Your task to perform on an android device: Go to Reddit.com Image 0: 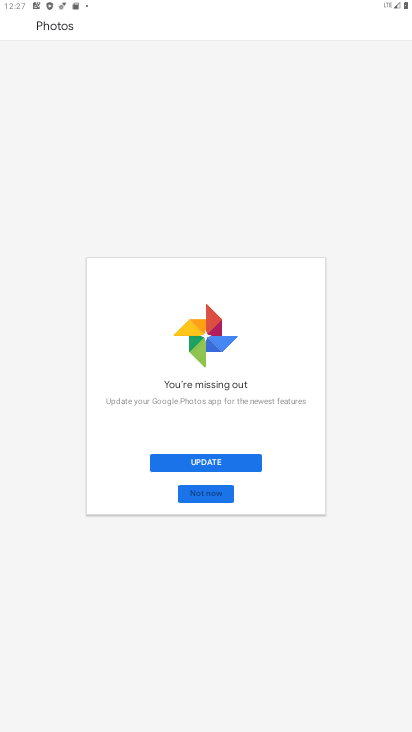
Step 0: press home button
Your task to perform on an android device: Go to Reddit.com Image 1: 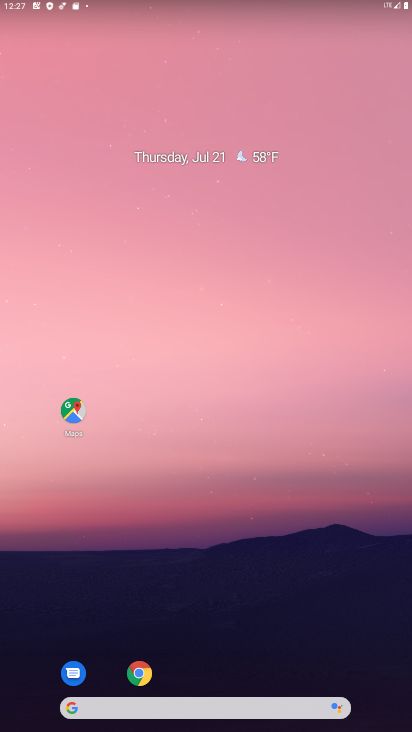
Step 1: drag from (181, 658) to (316, 143)
Your task to perform on an android device: Go to Reddit.com Image 2: 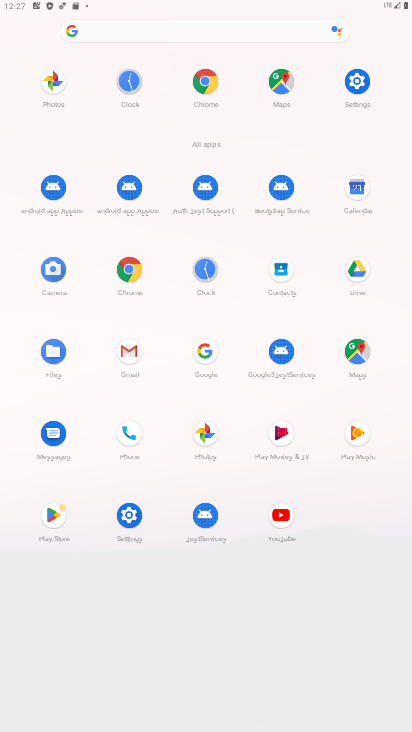
Step 2: click (194, 78)
Your task to perform on an android device: Go to Reddit.com Image 3: 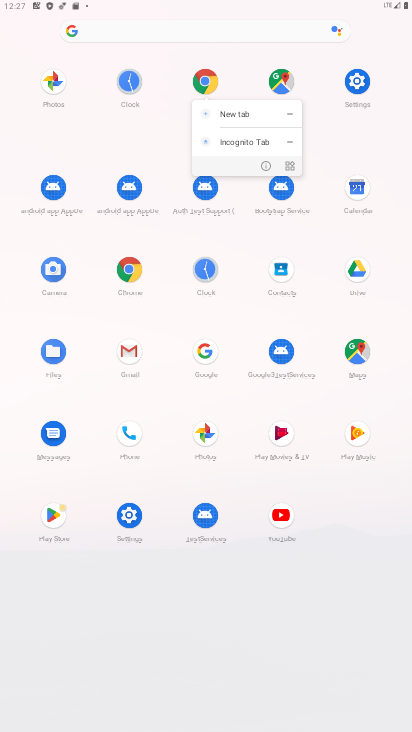
Step 3: click (206, 75)
Your task to perform on an android device: Go to Reddit.com Image 4: 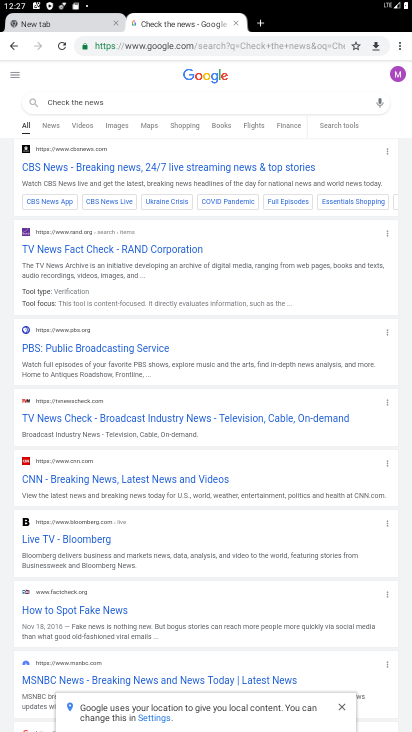
Step 4: click (145, 99)
Your task to perform on an android device: Go to Reddit.com Image 5: 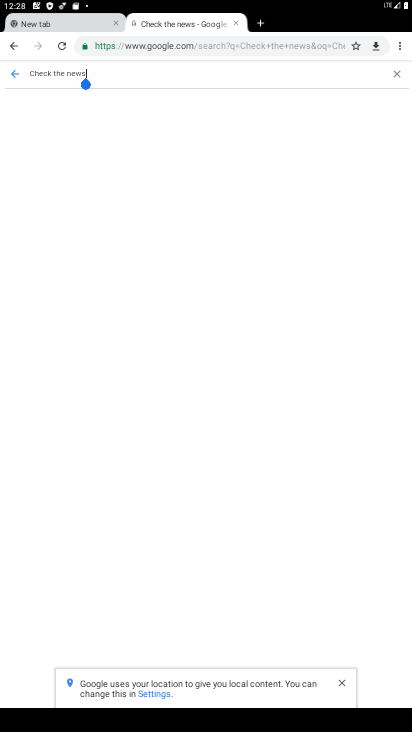
Step 5: click (259, 25)
Your task to perform on an android device: Go to Reddit.com Image 6: 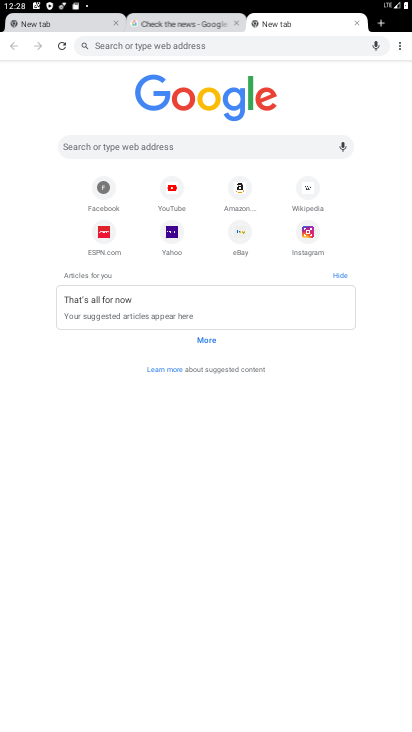
Step 6: click (209, 134)
Your task to perform on an android device: Go to Reddit.com Image 7: 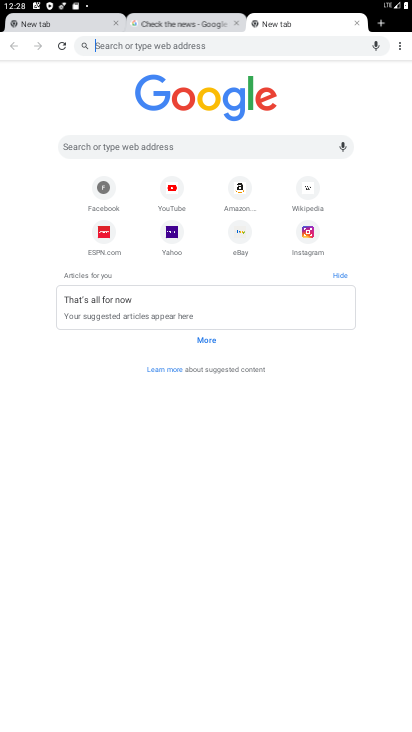
Step 7: type " Reddit.com "
Your task to perform on an android device: Go to Reddit.com Image 8: 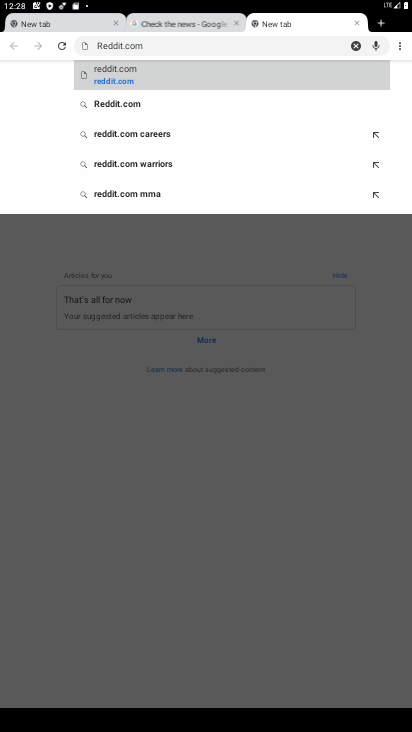
Step 8: click (131, 71)
Your task to perform on an android device: Go to Reddit.com Image 9: 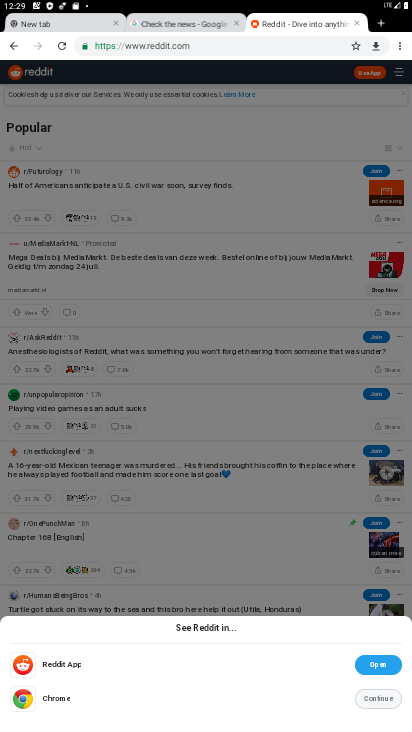
Step 9: click (375, 665)
Your task to perform on an android device: Go to Reddit.com Image 10: 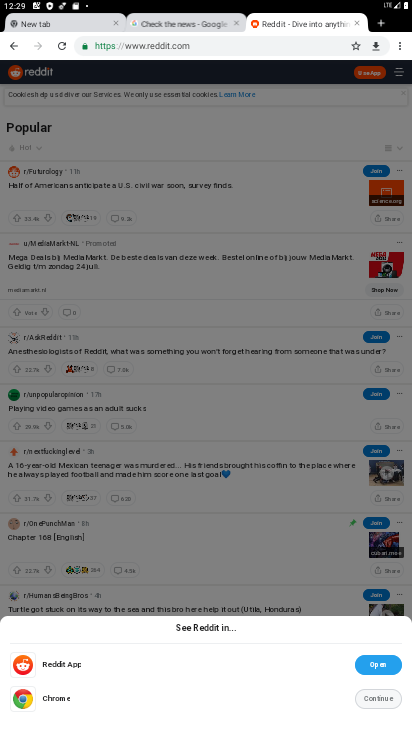
Step 10: task complete